Your task to perform on an android device: allow cookies in the chrome app Image 0: 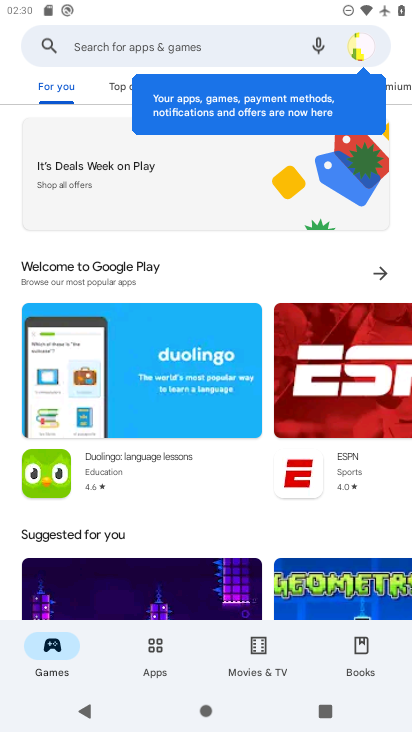
Step 0: press home button
Your task to perform on an android device: allow cookies in the chrome app Image 1: 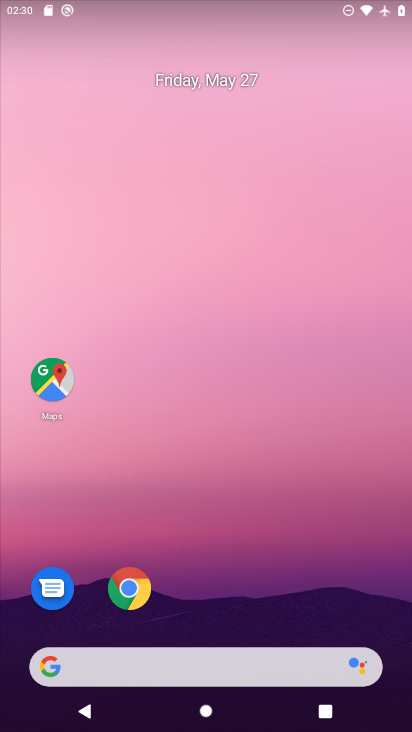
Step 1: click (128, 589)
Your task to perform on an android device: allow cookies in the chrome app Image 2: 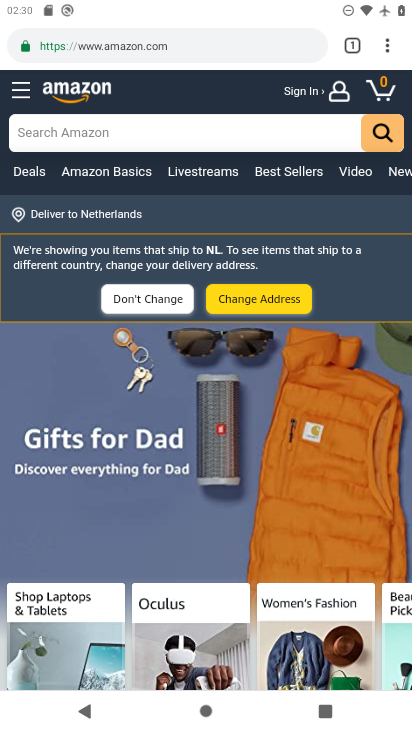
Step 2: click (386, 49)
Your task to perform on an android device: allow cookies in the chrome app Image 3: 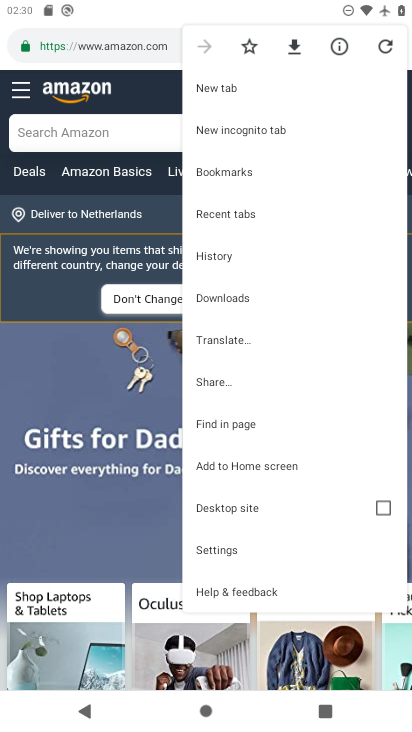
Step 3: click (235, 544)
Your task to perform on an android device: allow cookies in the chrome app Image 4: 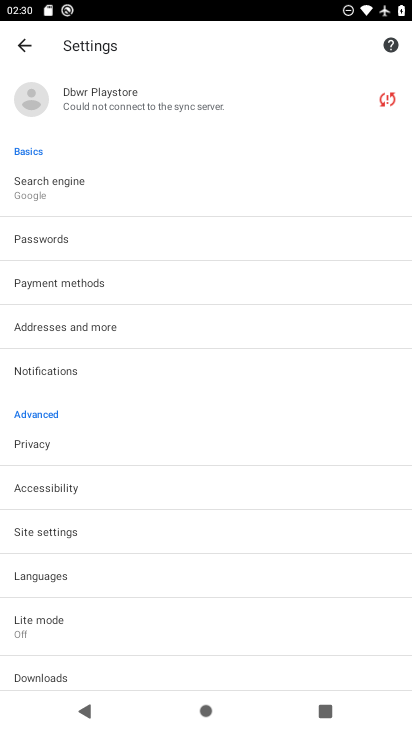
Step 4: click (40, 534)
Your task to perform on an android device: allow cookies in the chrome app Image 5: 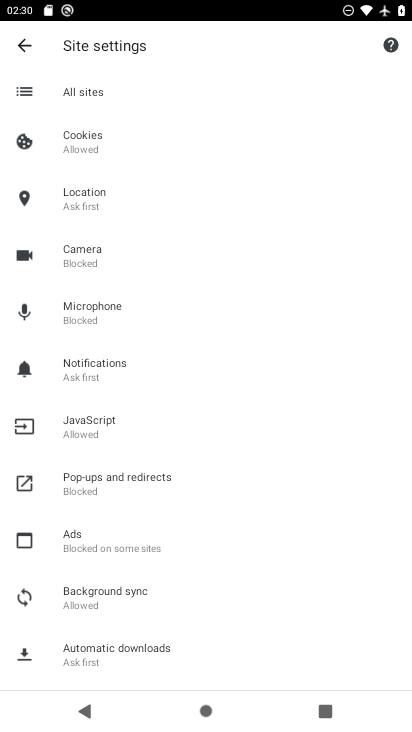
Step 5: click (96, 138)
Your task to perform on an android device: allow cookies in the chrome app Image 6: 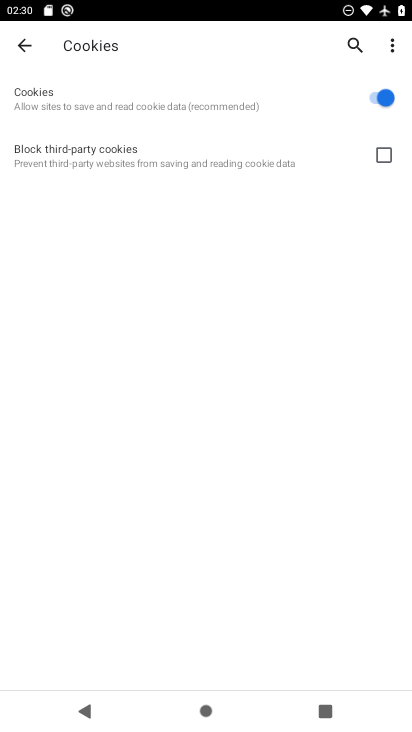
Step 6: task complete